Your task to perform on an android device: change keyboard looks Image 0: 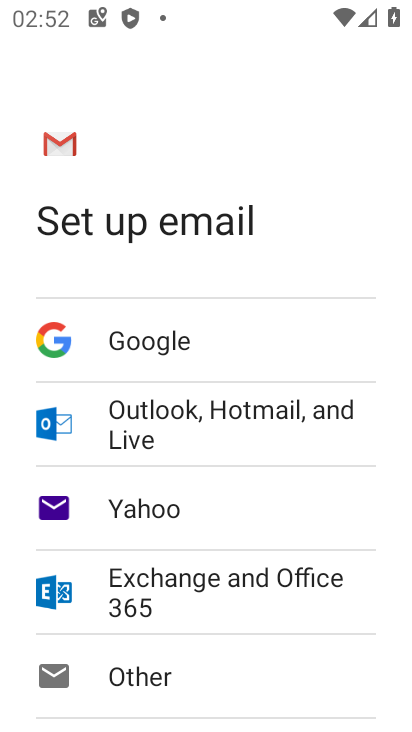
Step 0: press home button
Your task to perform on an android device: change keyboard looks Image 1: 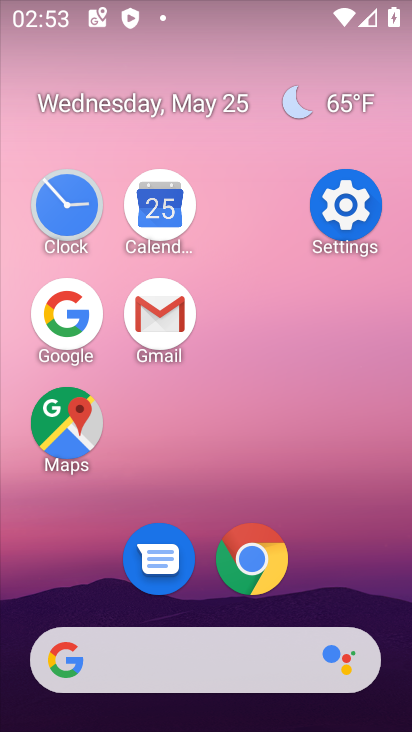
Step 1: click (354, 200)
Your task to perform on an android device: change keyboard looks Image 2: 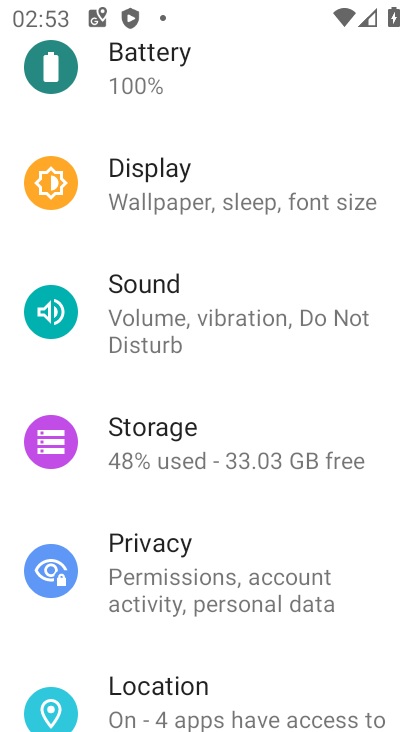
Step 2: drag from (294, 573) to (296, 185)
Your task to perform on an android device: change keyboard looks Image 3: 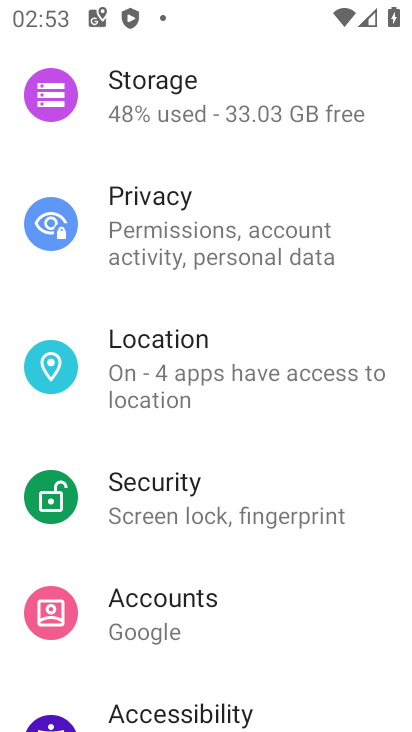
Step 3: drag from (269, 631) to (271, 203)
Your task to perform on an android device: change keyboard looks Image 4: 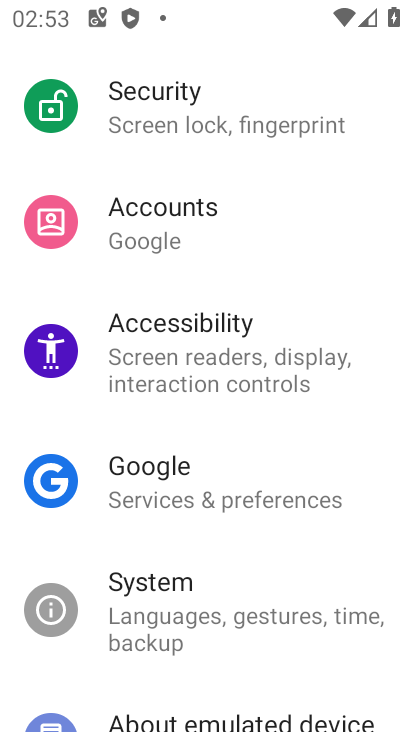
Step 4: click (242, 614)
Your task to perform on an android device: change keyboard looks Image 5: 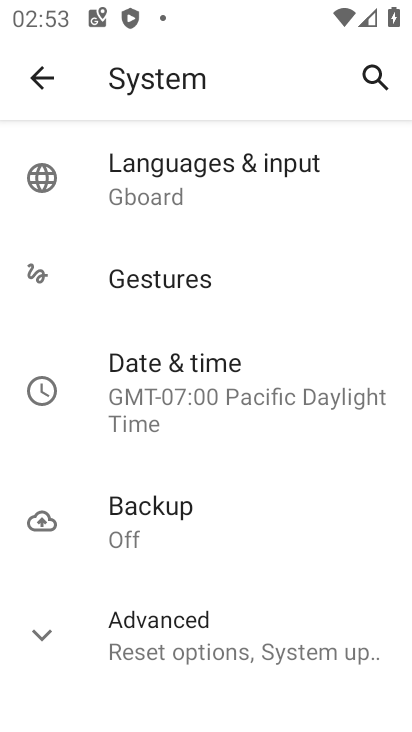
Step 5: click (189, 199)
Your task to perform on an android device: change keyboard looks Image 6: 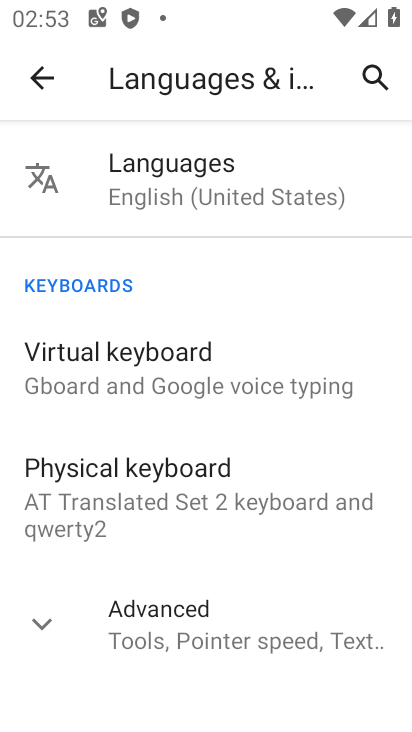
Step 6: click (224, 382)
Your task to perform on an android device: change keyboard looks Image 7: 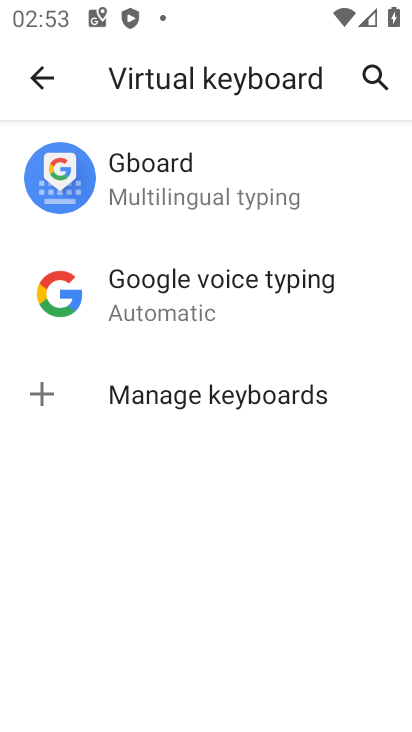
Step 7: click (232, 180)
Your task to perform on an android device: change keyboard looks Image 8: 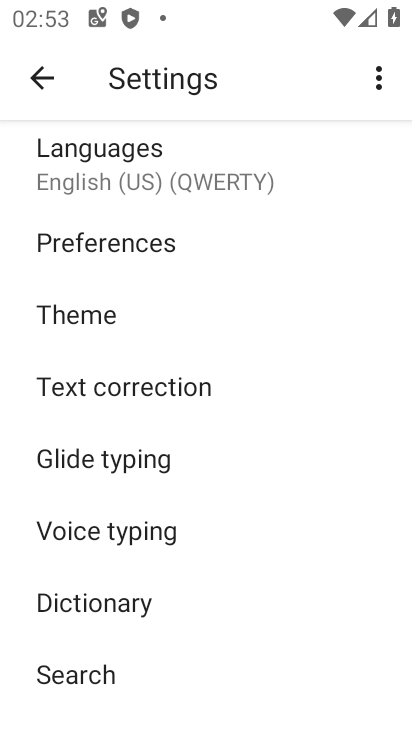
Step 8: click (81, 321)
Your task to perform on an android device: change keyboard looks Image 9: 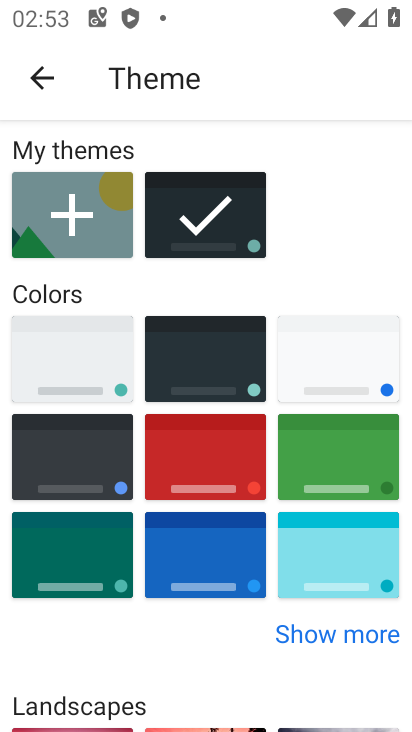
Step 9: click (253, 385)
Your task to perform on an android device: change keyboard looks Image 10: 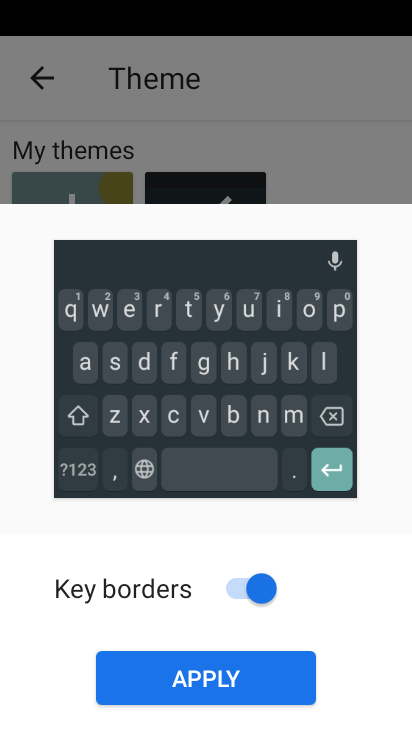
Step 10: click (261, 674)
Your task to perform on an android device: change keyboard looks Image 11: 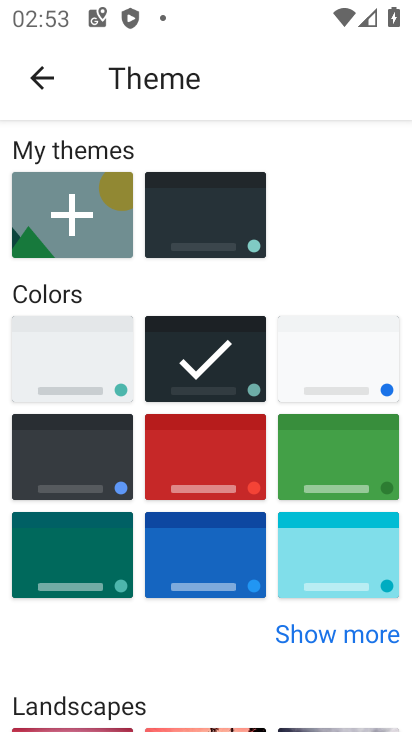
Step 11: task complete